Your task to perform on an android device: turn on priority inbox in the gmail app Image 0: 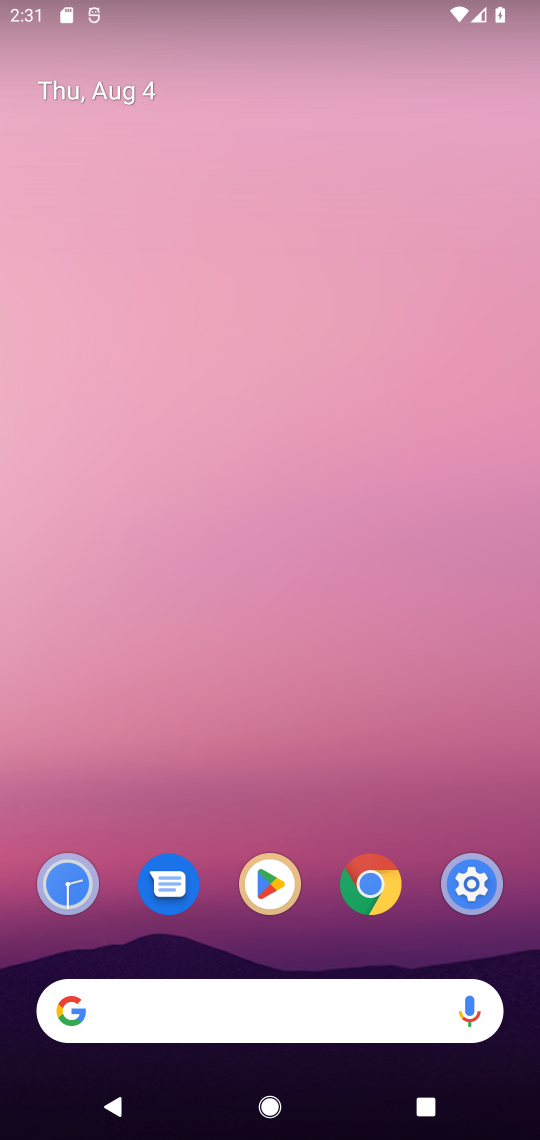
Step 0: drag from (312, 937) to (327, 126)
Your task to perform on an android device: turn on priority inbox in the gmail app Image 1: 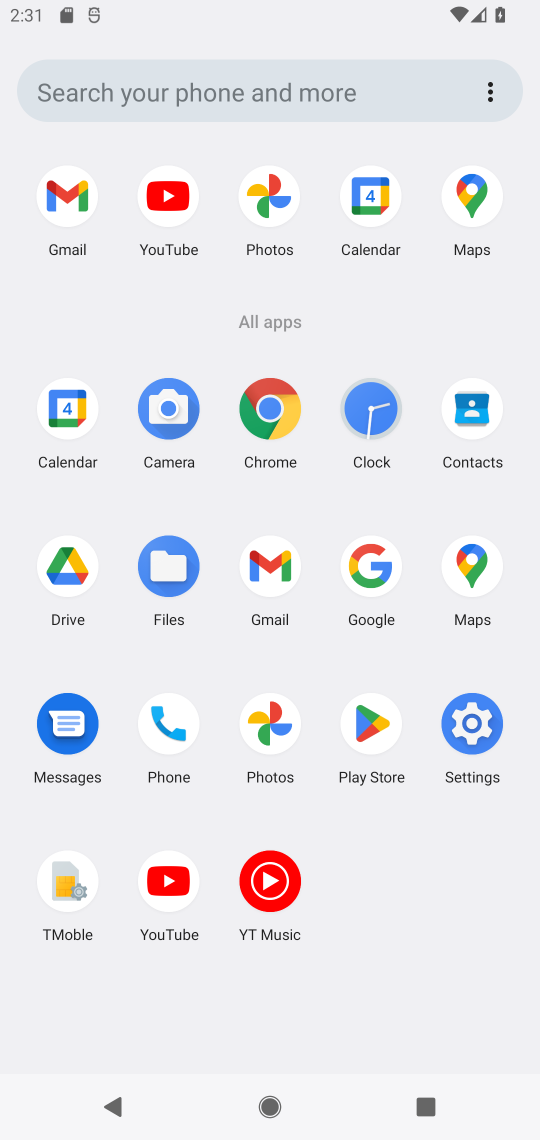
Step 1: click (61, 240)
Your task to perform on an android device: turn on priority inbox in the gmail app Image 2: 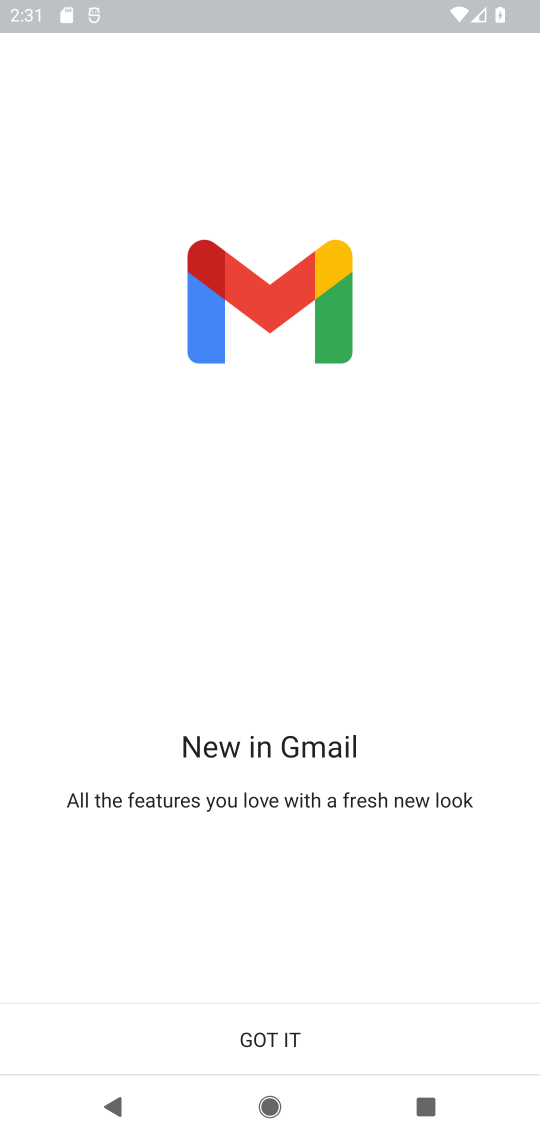
Step 2: click (248, 1034)
Your task to perform on an android device: turn on priority inbox in the gmail app Image 3: 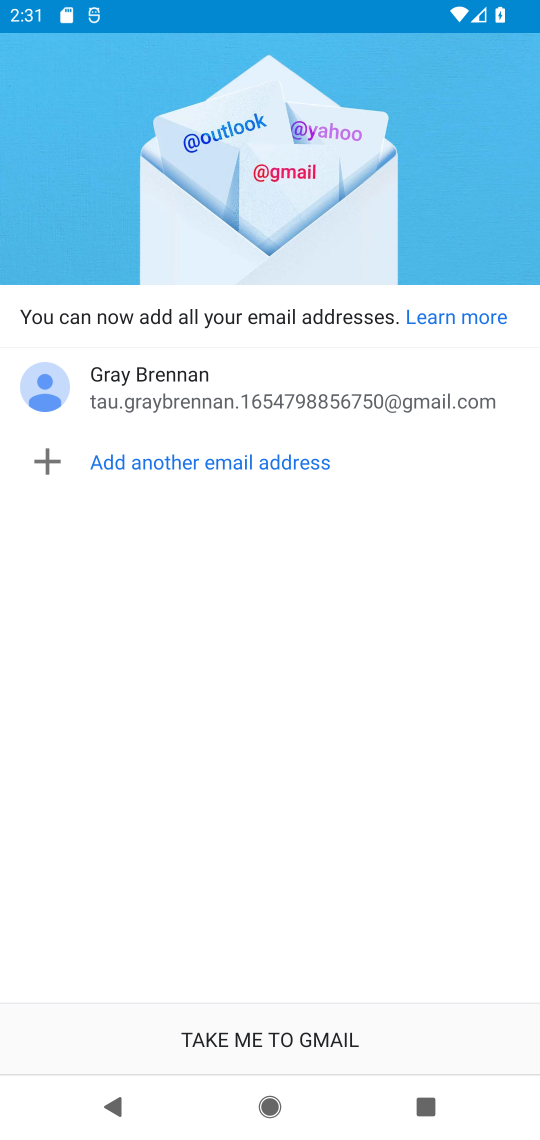
Step 3: click (248, 1034)
Your task to perform on an android device: turn on priority inbox in the gmail app Image 4: 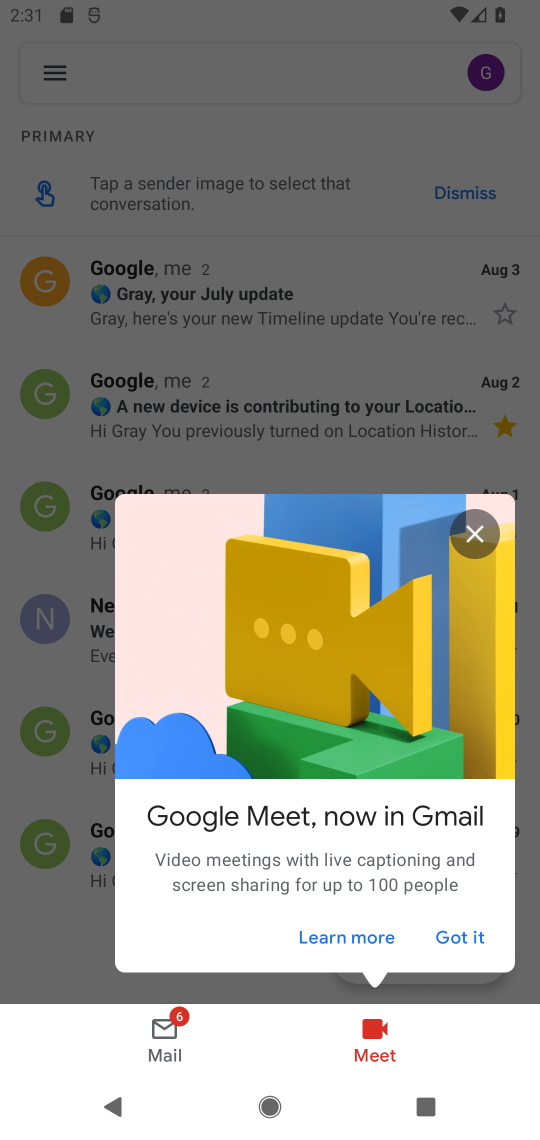
Step 4: click (450, 940)
Your task to perform on an android device: turn on priority inbox in the gmail app Image 5: 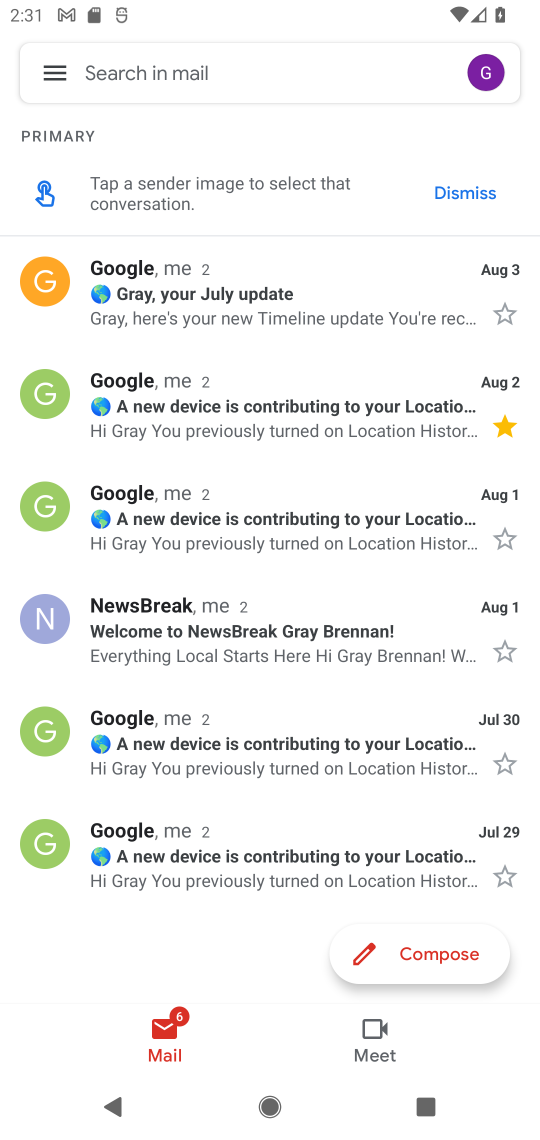
Step 5: click (68, 68)
Your task to perform on an android device: turn on priority inbox in the gmail app Image 6: 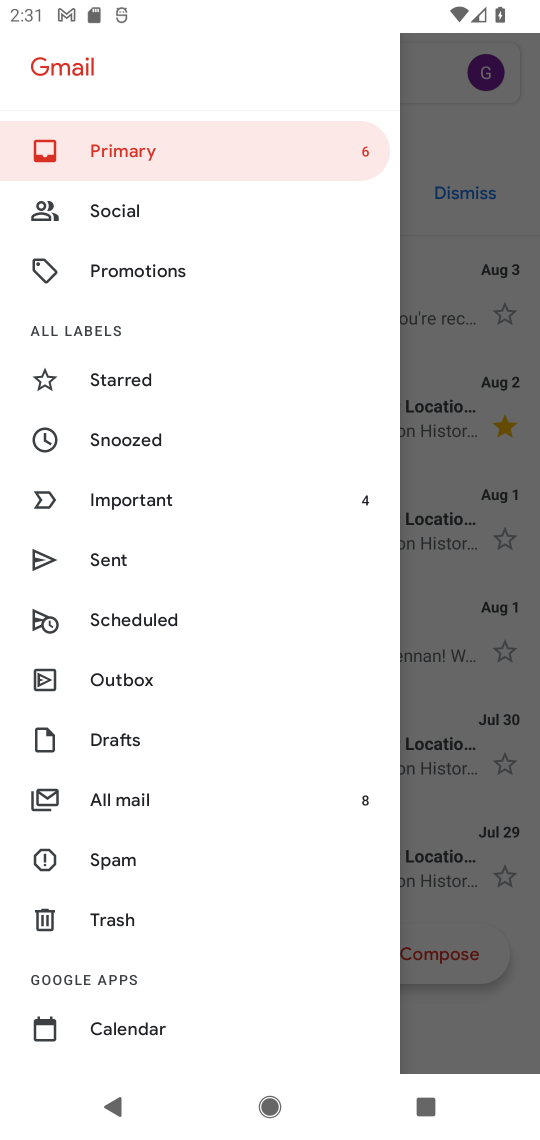
Step 6: drag from (193, 996) to (177, 416)
Your task to perform on an android device: turn on priority inbox in the gmail app Image 7: 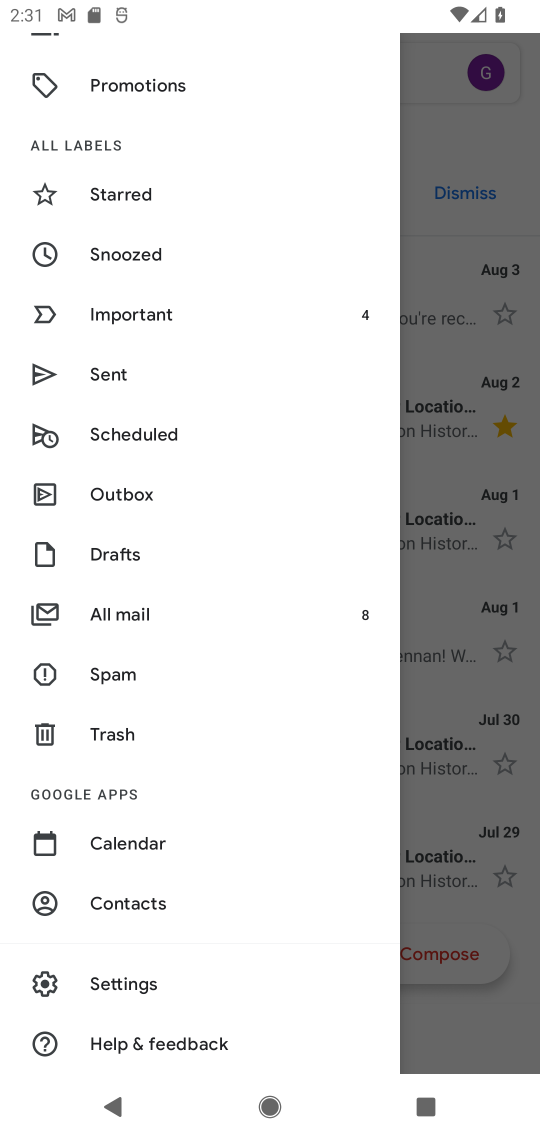
Step 7: click (113, 982)
Your task to perform on an android device: turn on priority inbox in the gmail app Image 8: 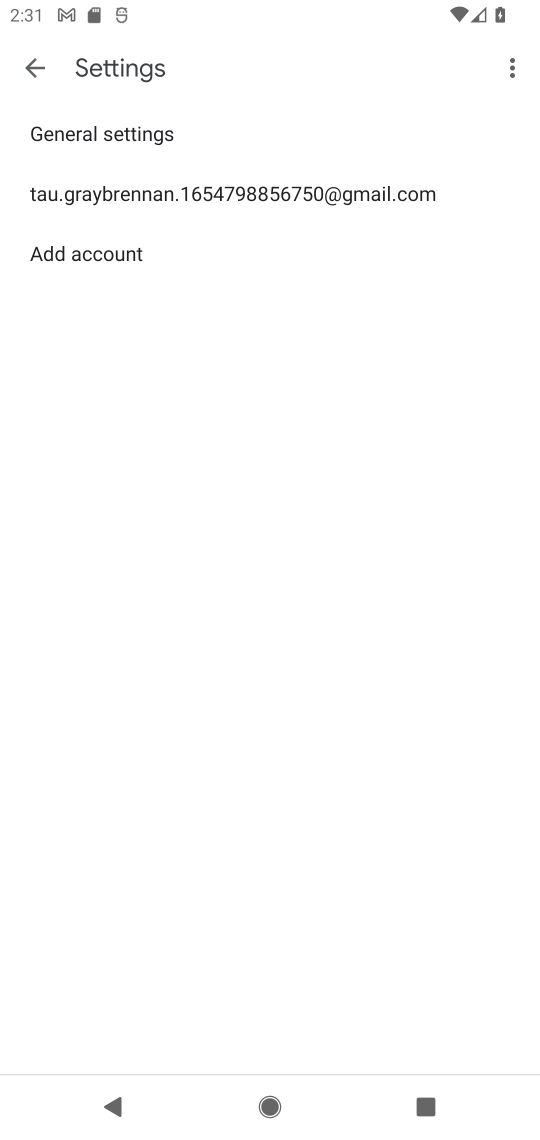
Step 8: click (201, 204)
Your task to perform on an android device: turn on priority inbox in the gmail app Image 9: 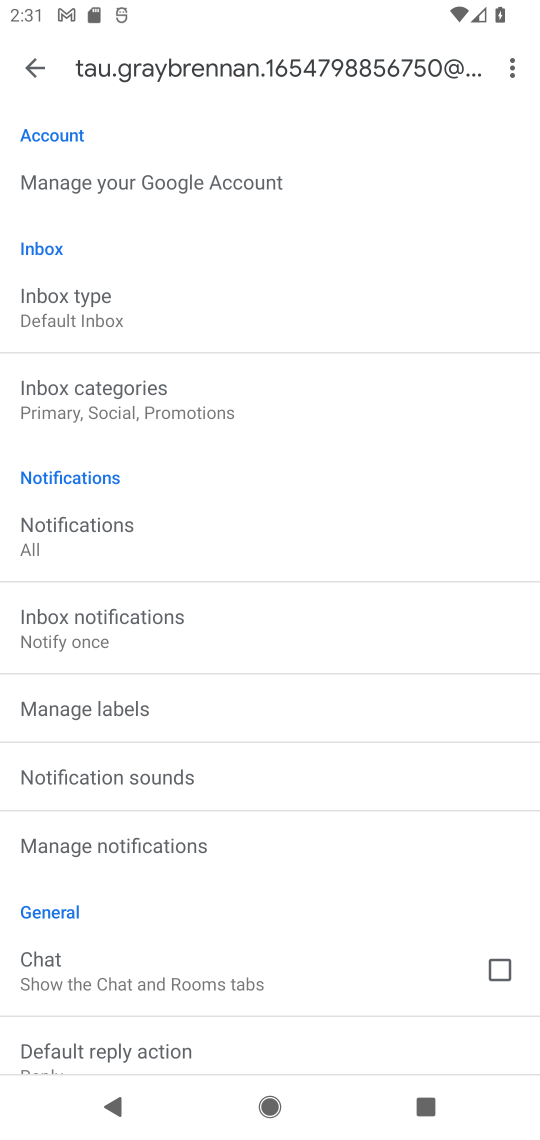
Step 9: click (73, 298)
Your task to perform on an android device: turn on priority inbox in the gmail app Image 10: 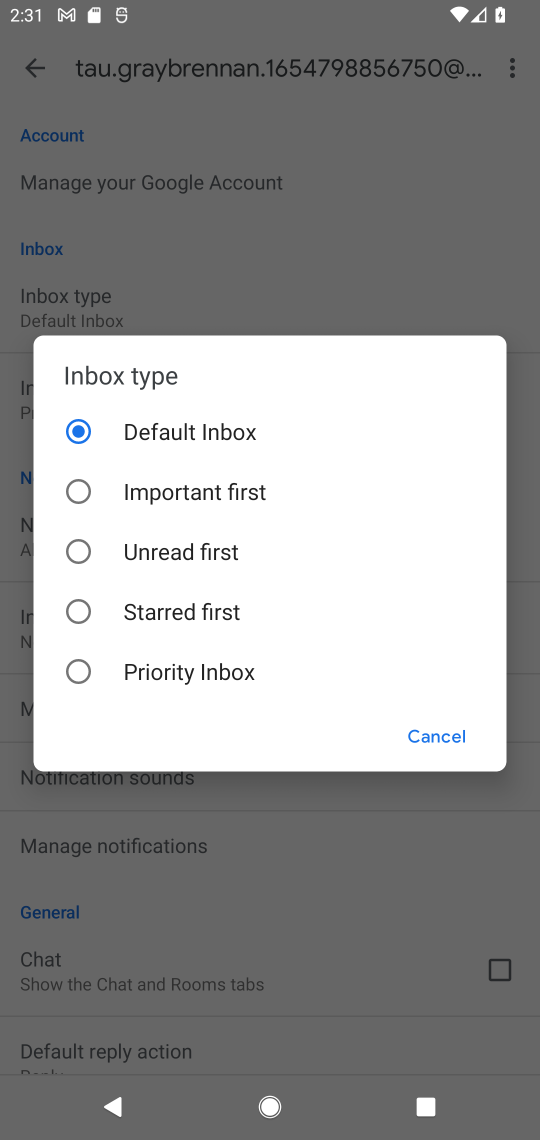
Step 10: click (132, 693)
Your task to perform on an android device: turn on priority inbox in the gmail app Image 11: 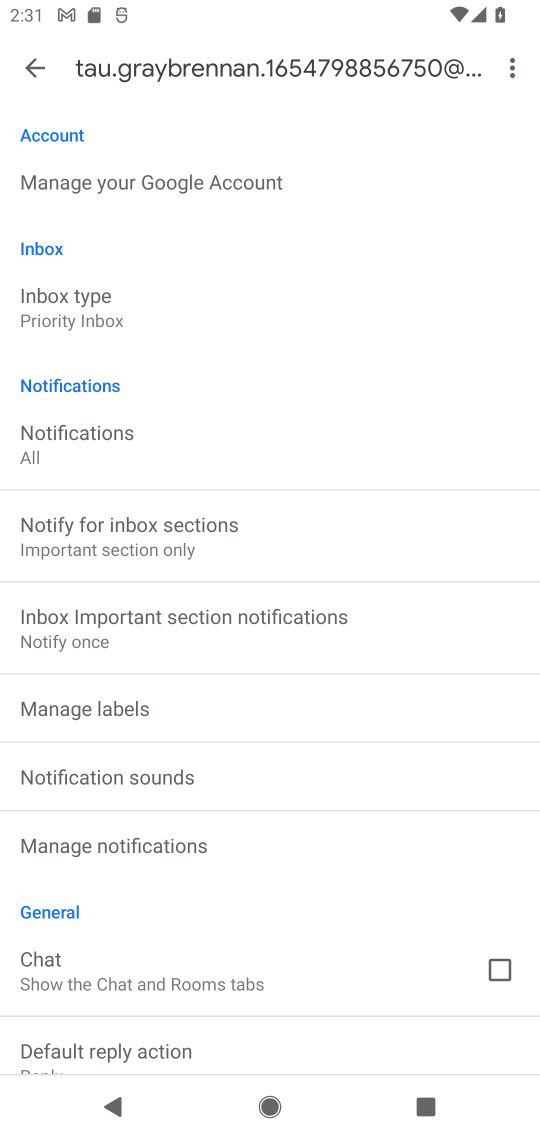
Step 11: task complete